Your task to perform on an android device: Open notification settings Image 0: 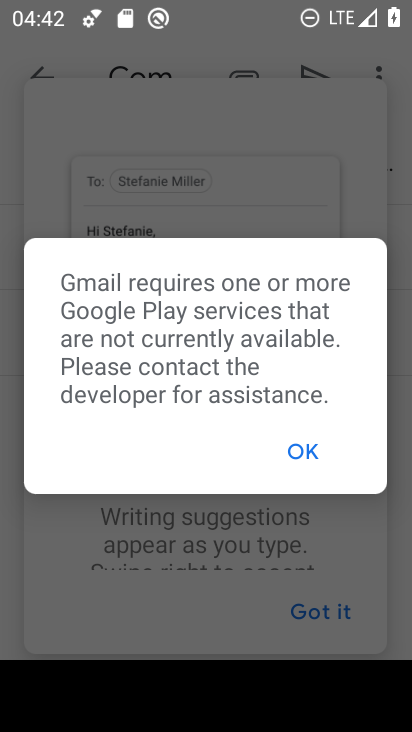
Step 0: press home button
Your task to perform on an android device: Open notification settings Image 1: 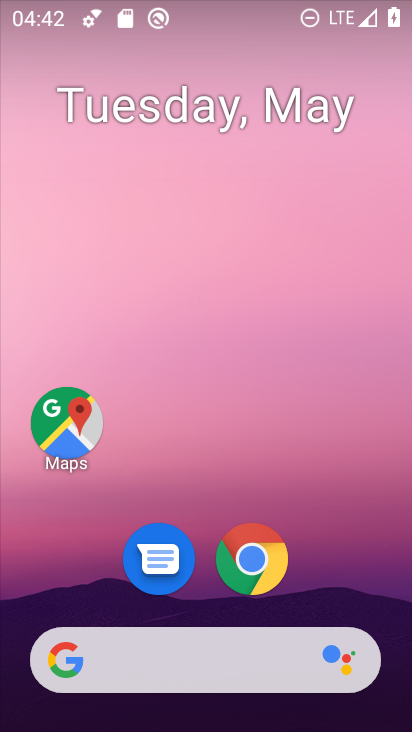
Step 1: drag from (232, 711) to (237, 111)
Your task to perform on an android device: Open notification settings Image 2: 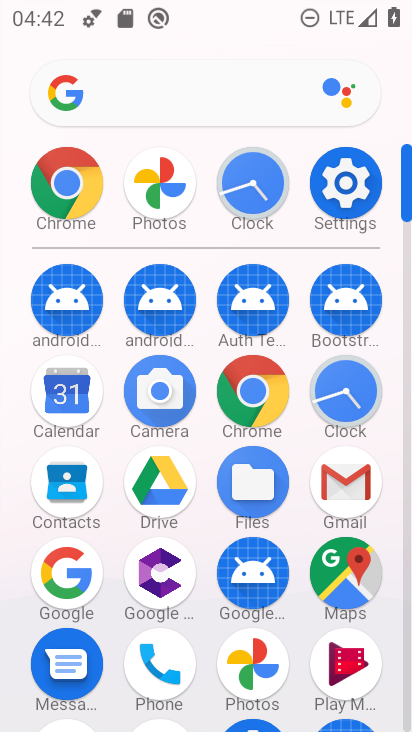
Step 2: click (347, 187)
Your task to perform on an android device: Open notification settings Image 3: 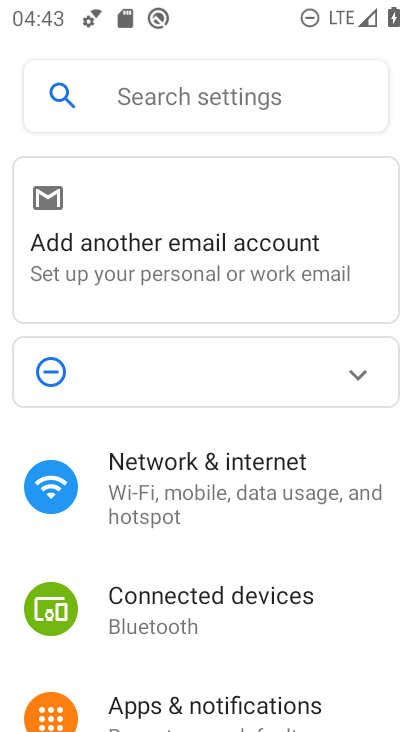
Step 3: drag from (192, 680) to (212, 396)
Your task to perform on an android device: Open notification settings Image 4: 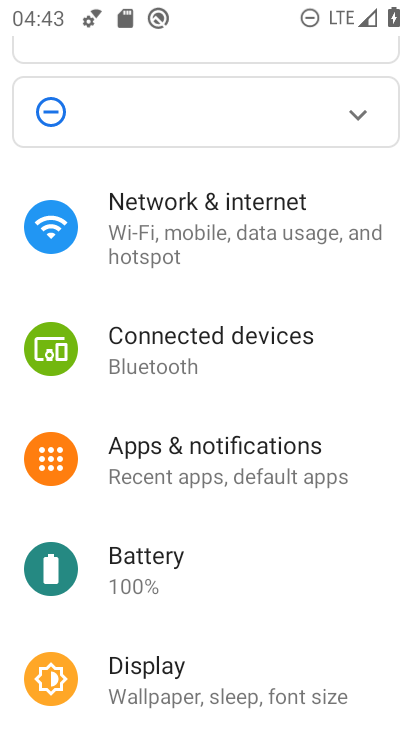
Step 4: click (209, 461)
Your task to perform on an android device: Open notification settings Image 5: 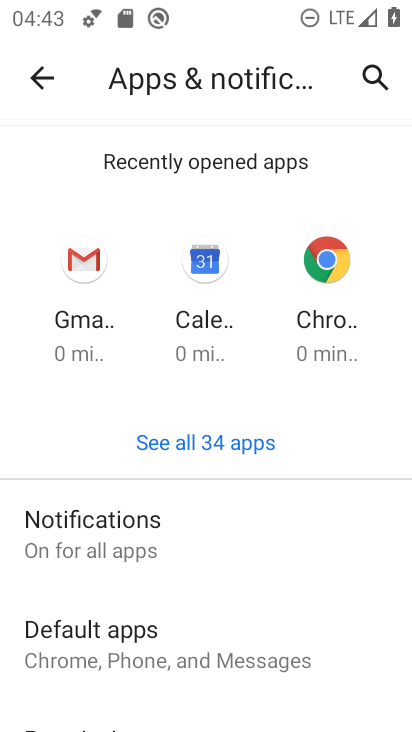
Step 5: click (96, 529)
Your task to perform on an android device: Open notification settings Image 6: 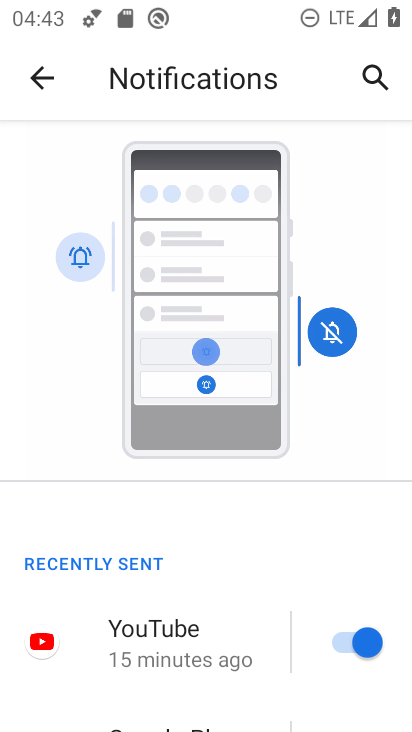
Step 6: task complete